Your task to perform on an android device: Go to location settings Image 0: 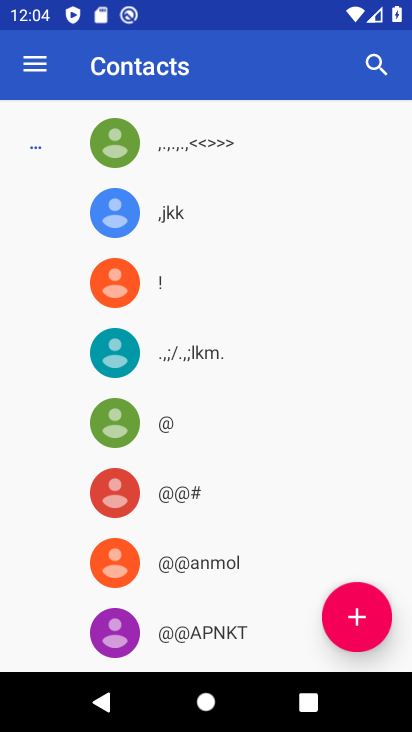
Step 0: press home button
Your task to perform on an android device: Go to location settings Image 1: 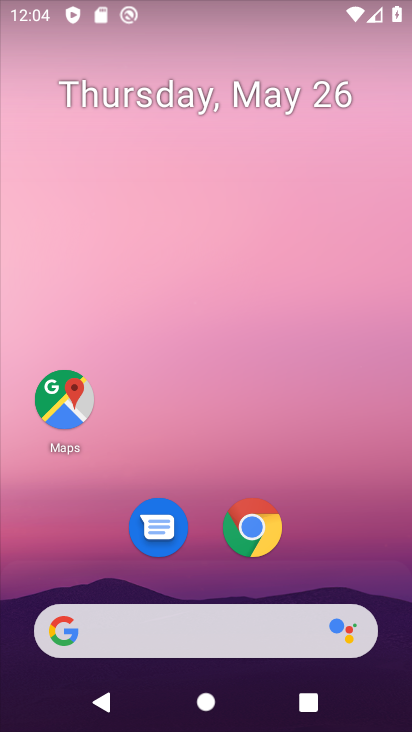
Step 1: drag from (309, 555) to (351, 93)
Your task to perform on an android device: Go to location settings Image 2: 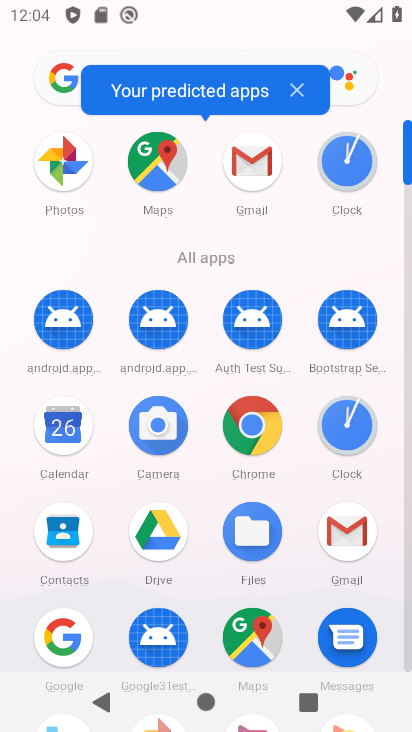
Step 2: drag from (196, 573) to (221, 201)
Your task to perform on an android device: Go to location settings Image 3: 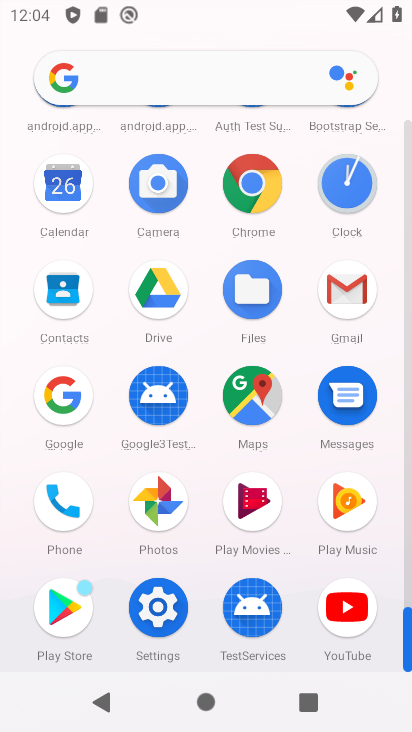
Step 3: click (162, 610)
Your task to perform on an android device: Go to location settings Image 4: 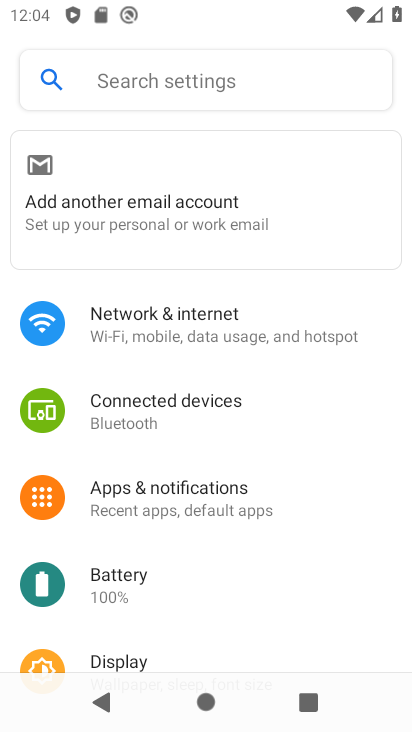
Step 4: drag from (158, 612) to (224, 183)
Your task to perform on an android device: Go to location settings Image 5: 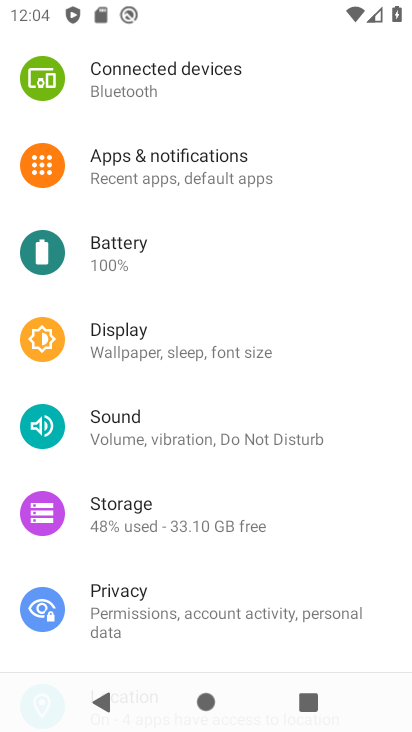
Step 5: drag from (162, 634) to (203, 203)
Your task to perform on an android device: Go to location settings Image 6: 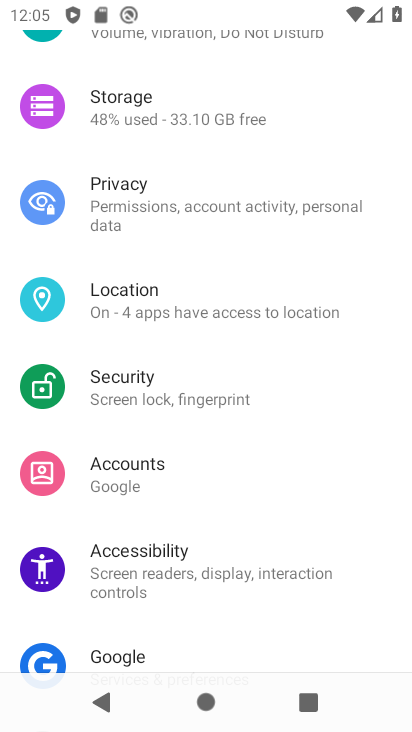
Step 6: click (198, 313)
Your task to perform on an android device: Go to location settings Image 7: 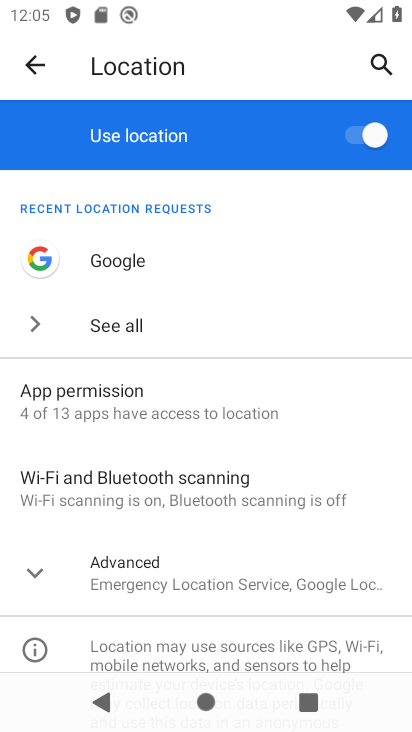
Step 7: drag from (179, 591) to (235, 215)
Your task to perform on an android device: Go to location settings Image 8: 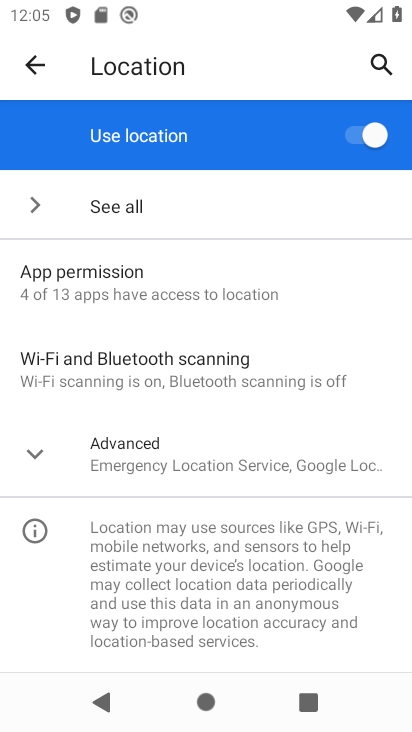
Step 8: click (167, 440)
Your task to perform on an android device: Go to location settings Image 9: 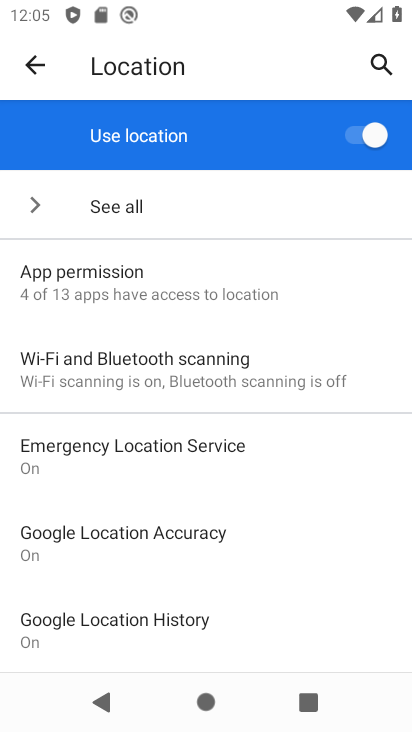
Step 9: task complete